Your task to perform on an android device: turn on wifi Image 0: 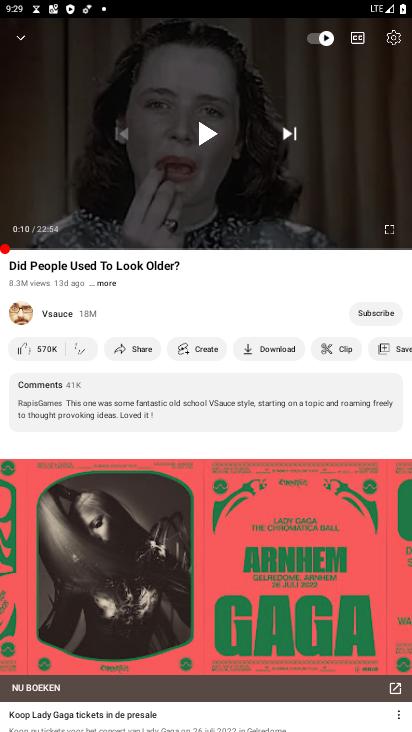
Step 0: drag from (167, 7) to (154, 613)
Your task to perform on an android device: turn on wifi Image 1: 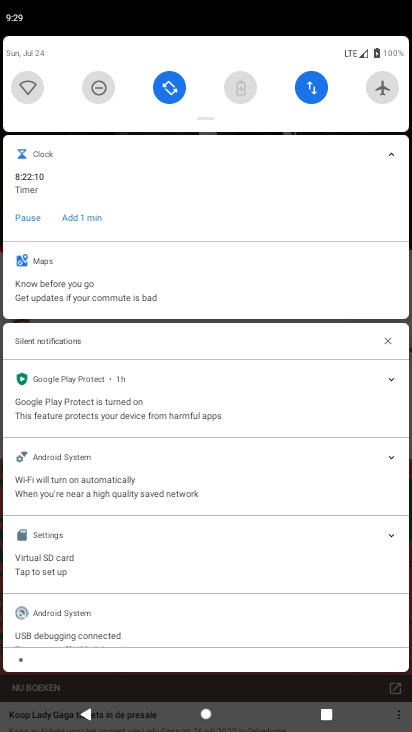
Step 1: click (25, 90)
Your task to perform on an android device: turn on wifi Image 2: 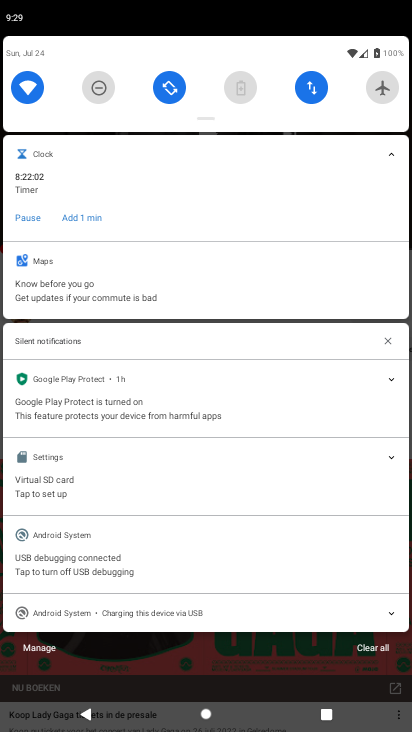
Step 2: task complete